Your task to perform on an android device: remove spam from my inbox in the gmail app Image 0: 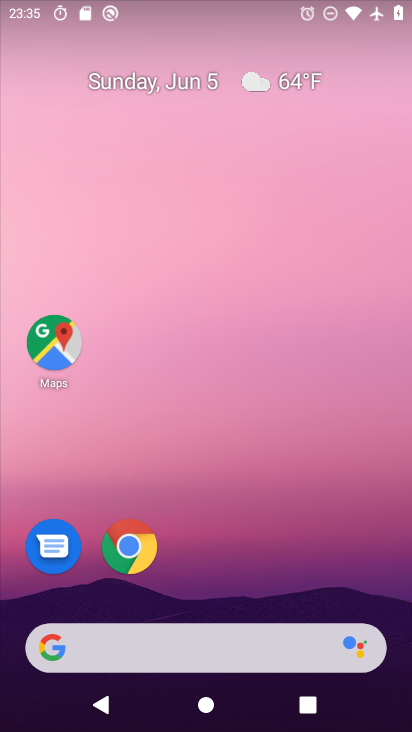
Step 0: drag from (185, 529) to (216, 326)
Your task to perform on an android device: remove spam from my inbox in the gmail app Image 1: 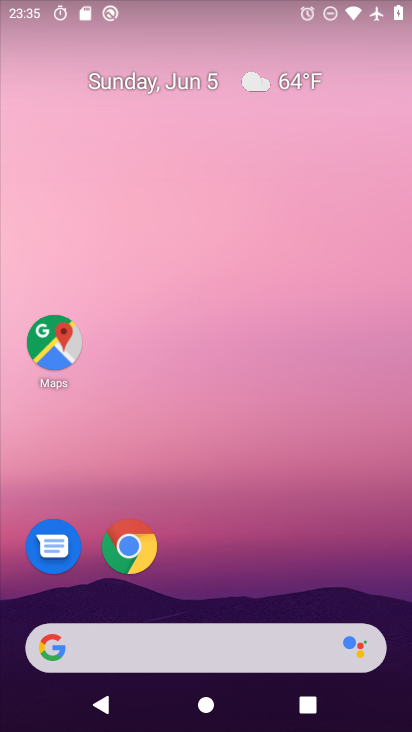
Step 1: drag from (182, 598) to (132, 10)
Your task to perform on an android device: remove spam from my inbox in the gmail app Image 2: 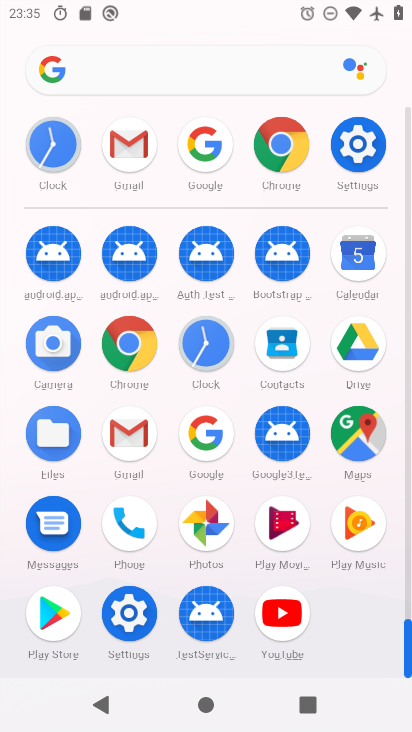
Step 2: click (148, 421)
Your task to perform on an android device: remove spam from my inbox in the gmail app Image 3: 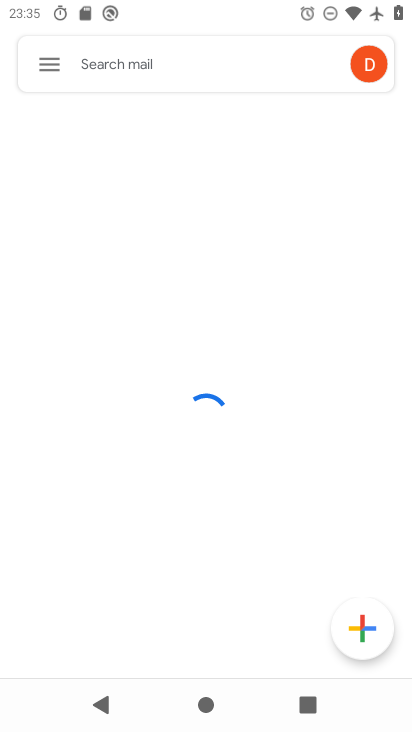
Step 3: click (41, 73)
Your task to perform on an android device: remove spam from my inbox in the gmail app Image 4: 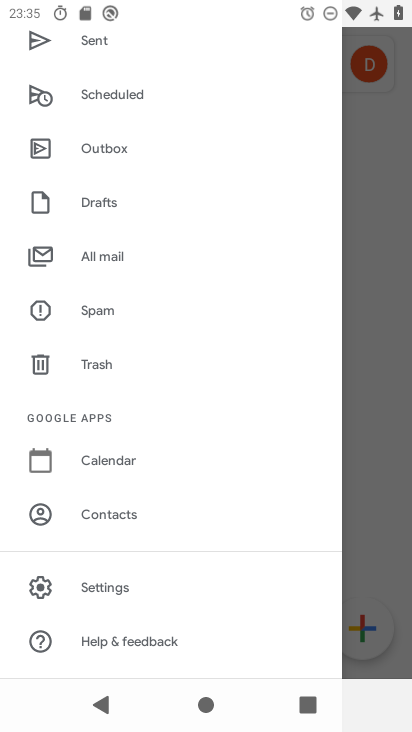
Step 4: click (134, 310)
Your task to perform on an android device: remove spam from my inbox in the gmail app Image 5: 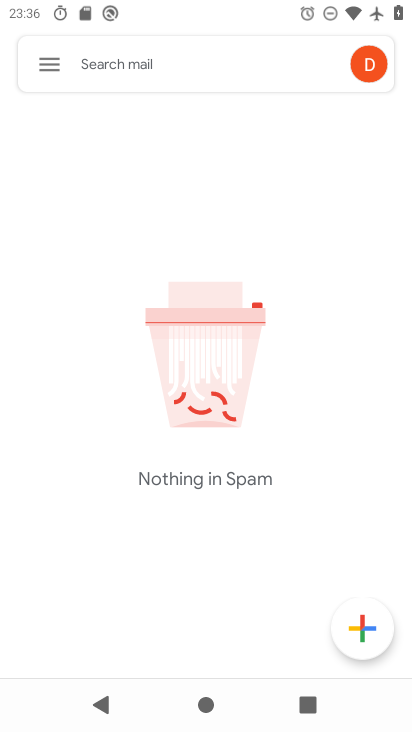
Step 5: task complete